Your task to perform on an android device: turn on bluetooth scan Image 0: 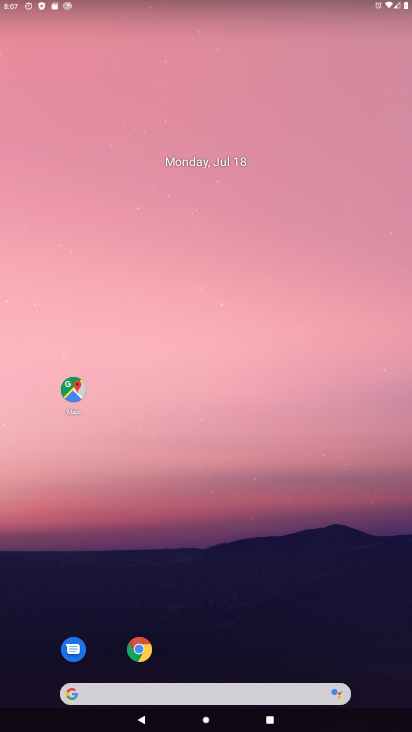
Step 0: drag from (315, 608) to (359, 163)
Your task to perform on an android device: turn on bluetooth scan Image 1: 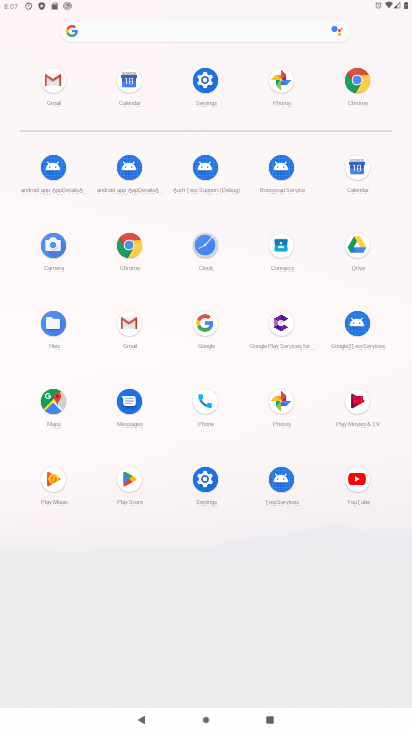
Step 1: click (214, 82)
Your task to perform on an android device: turn on bluetooth scan Image 2: 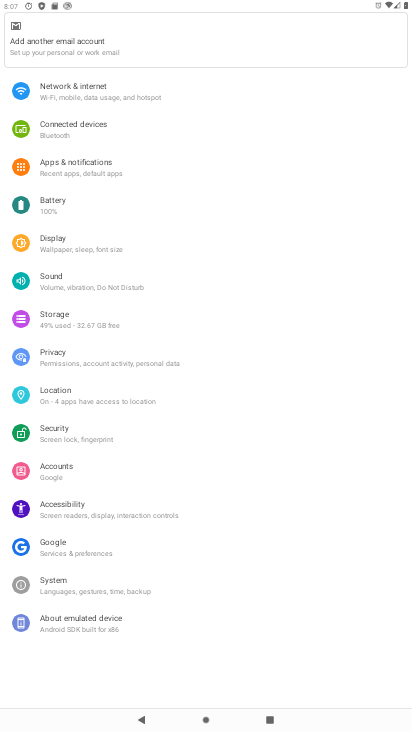
Step 2: click (81, 398)
Your task to perform on an android device: turn on bluetooth scan Image 3: 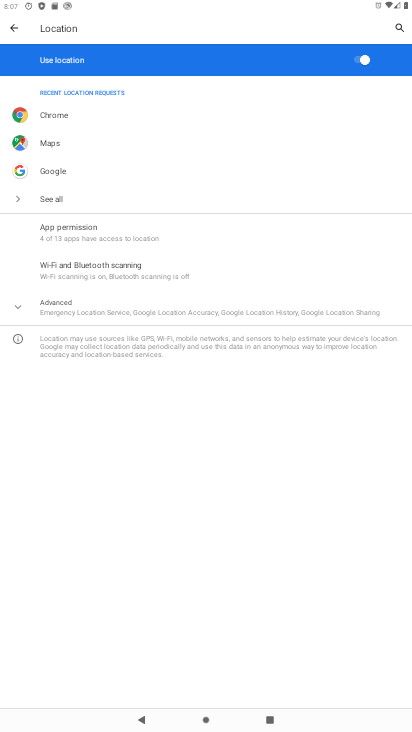
Step 3: click (74, 316)
Your task to perform on an android device: turn on bluetooth scan Image 4: 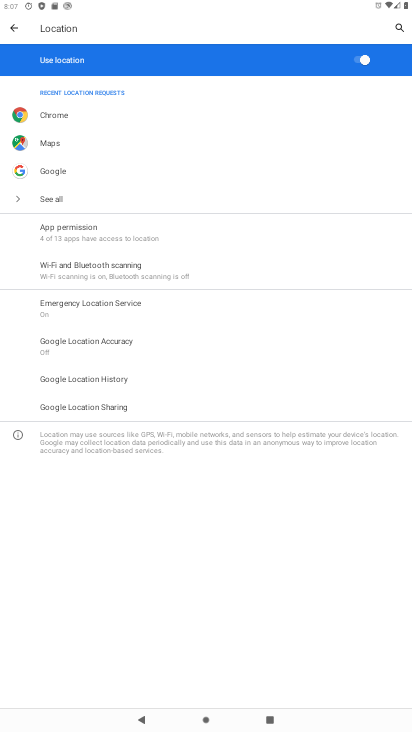
Step 4: click (89, 274)
Your task to perform on an android device: turn on bluetooth scan Image 5: 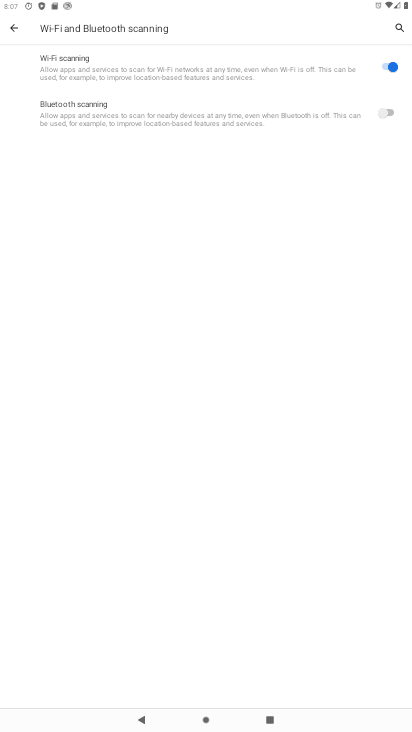
Step 5: click (379, 105)
Your task to perform on an android device: turn on bluetooth scan Image 6: 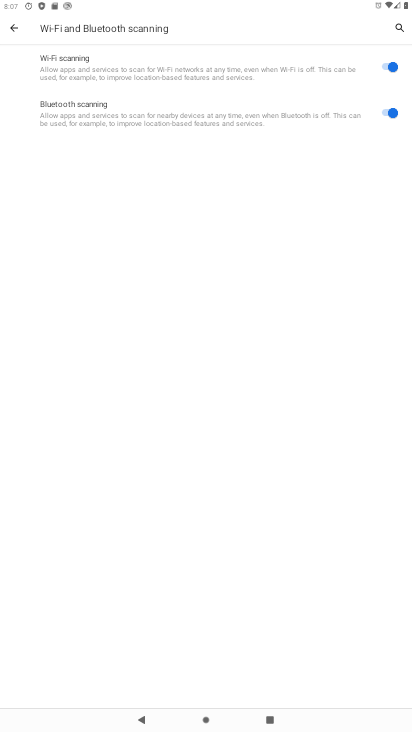
Step 6: task complete